Your task to perform on an android device: visit the assistant section in the google photos Image 0: 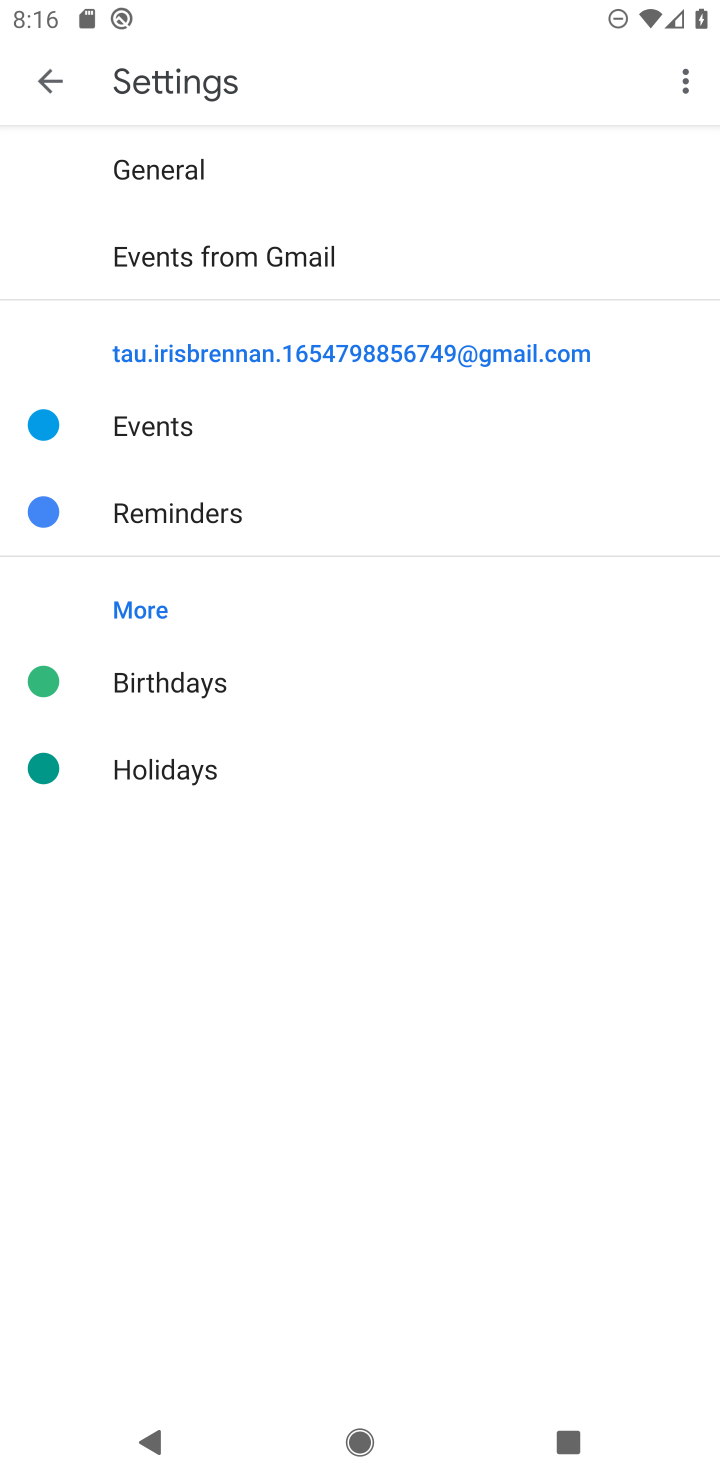
Step 0: press home button
Your task to perform on an android device: visit the assistant section in the google photos Image 1: 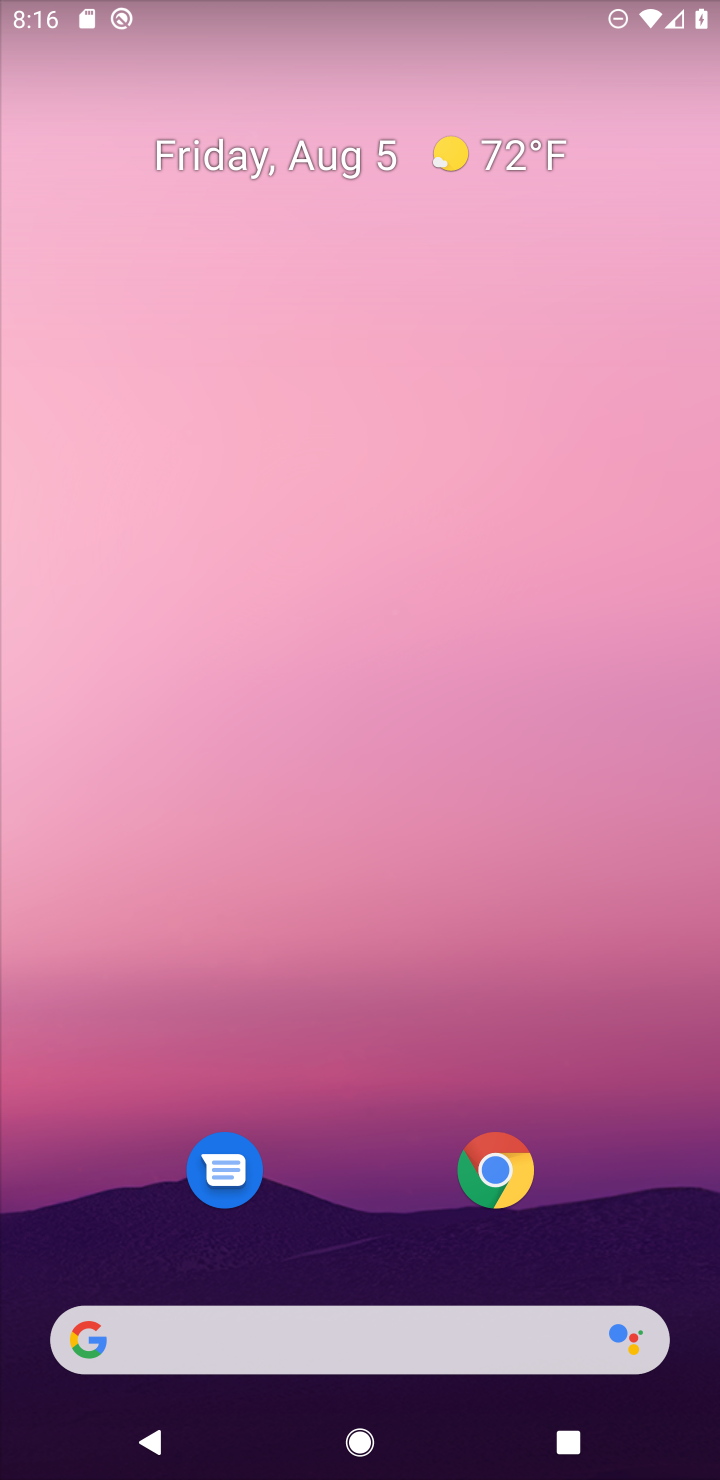
Step 1: drag from (691, 1269) to (551, 1)
Your task to perform on an android device: visit the assistant section in the google photos Image 2: 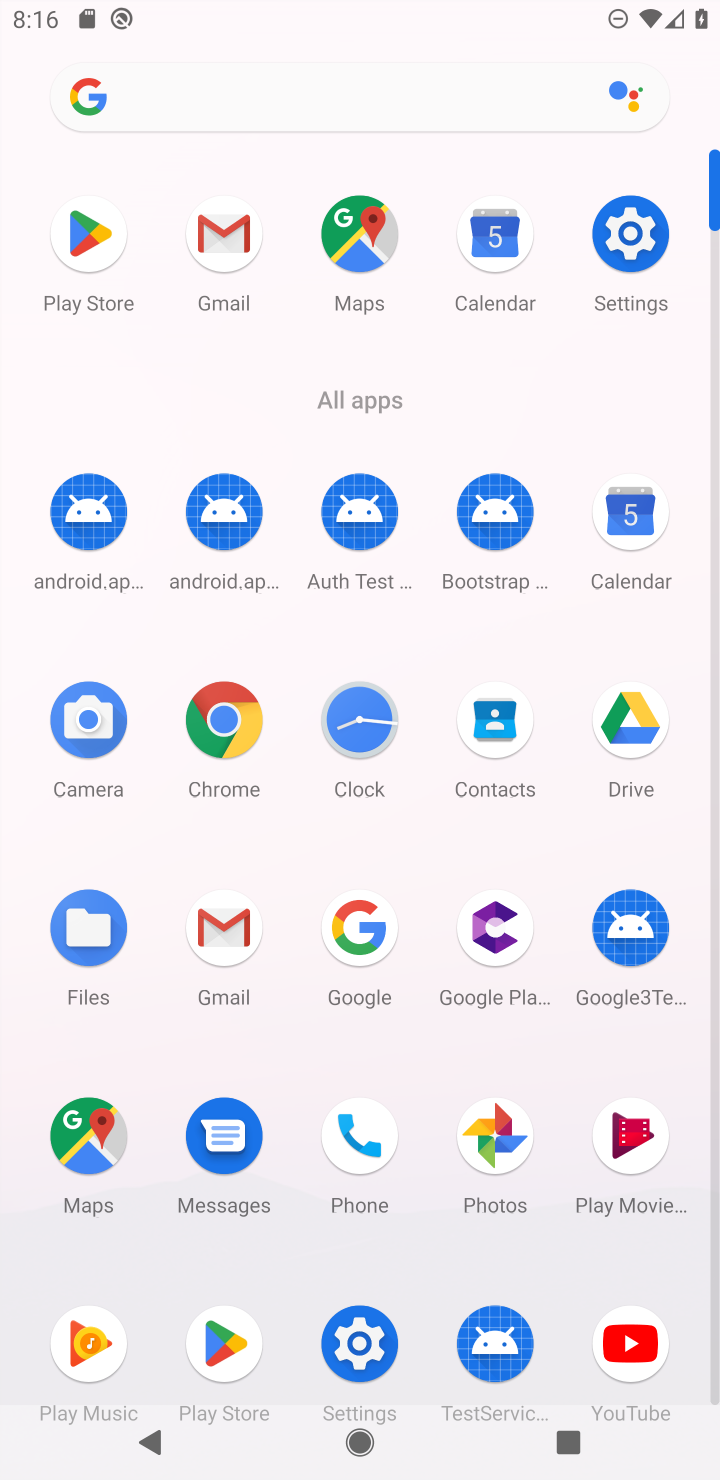
Step 2: click (490, 1137)
Your task to perform on an android device: visit the assistant section in the google photos Image 3: 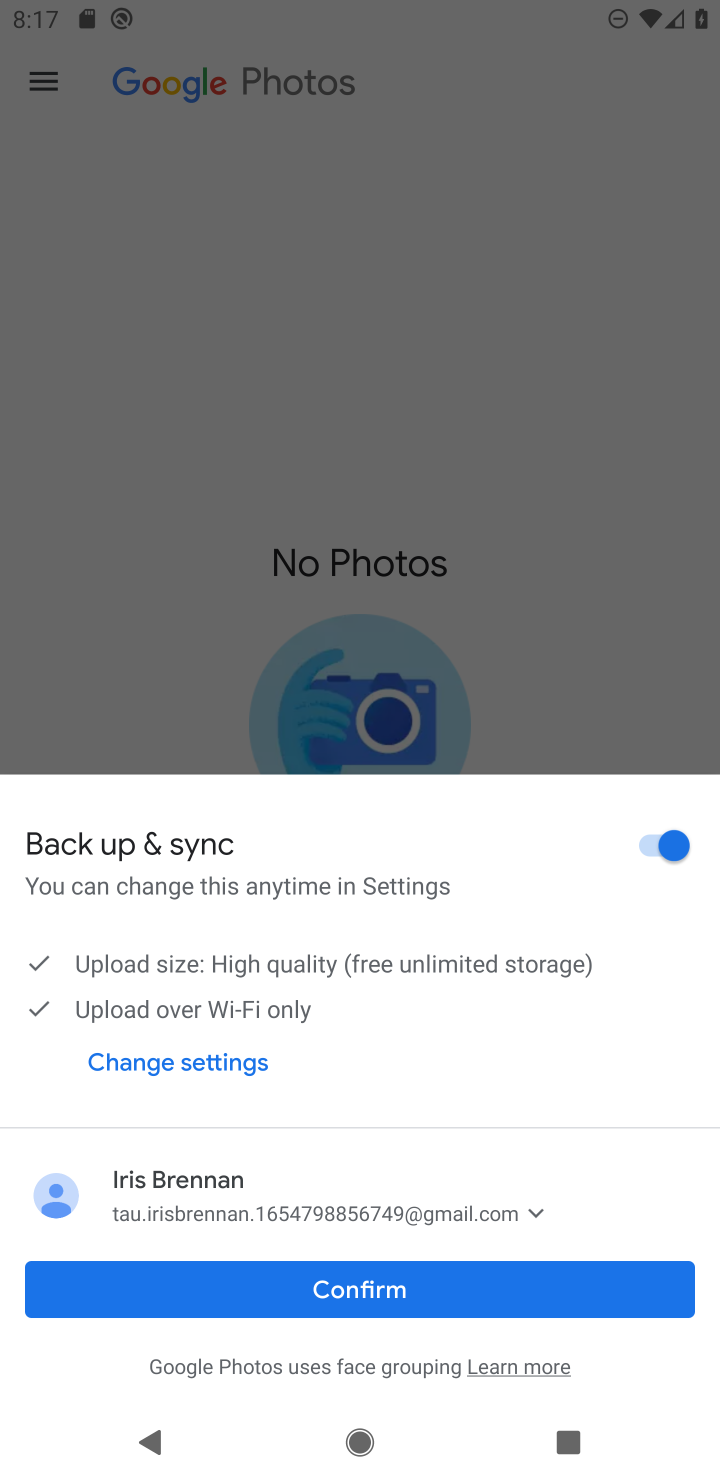
Step 3: click (333, 1285)
Your task to perform on an android device: visit the assistant section in the google photos Image 4: 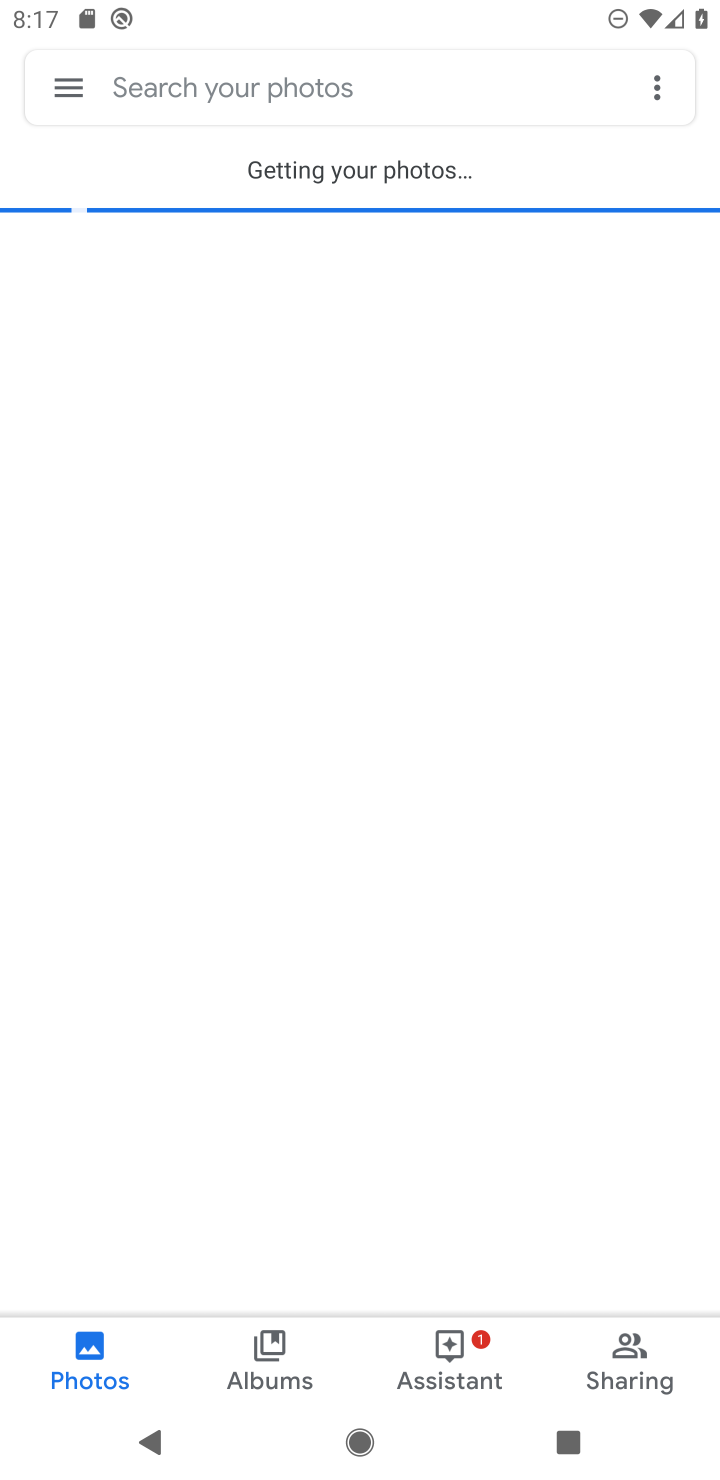
Step 4: click (449, 1348)
Your task to perform on an android device: visit the assistant section in the google photos Image 5: 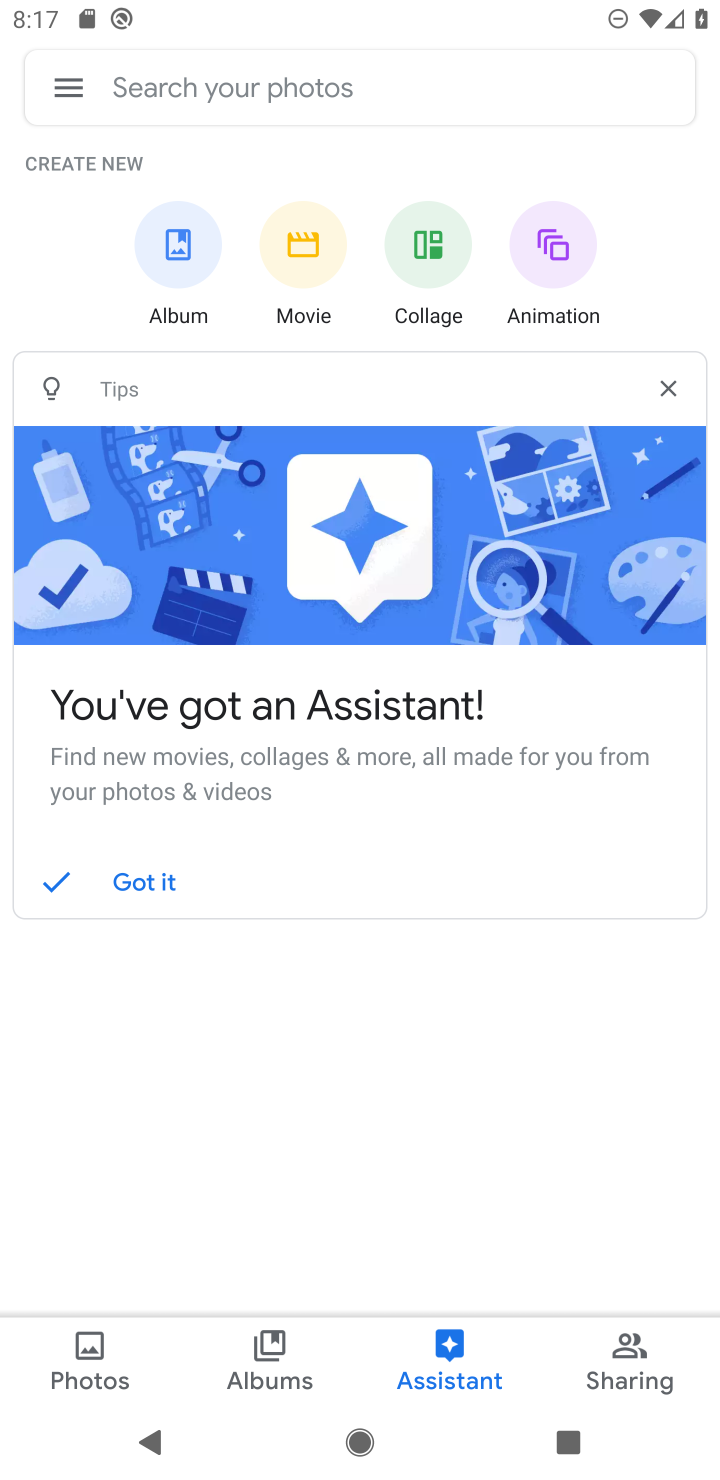
Step 5: task complete